Your task to perform on an android device: set default search engine in the chrome app Image 0: 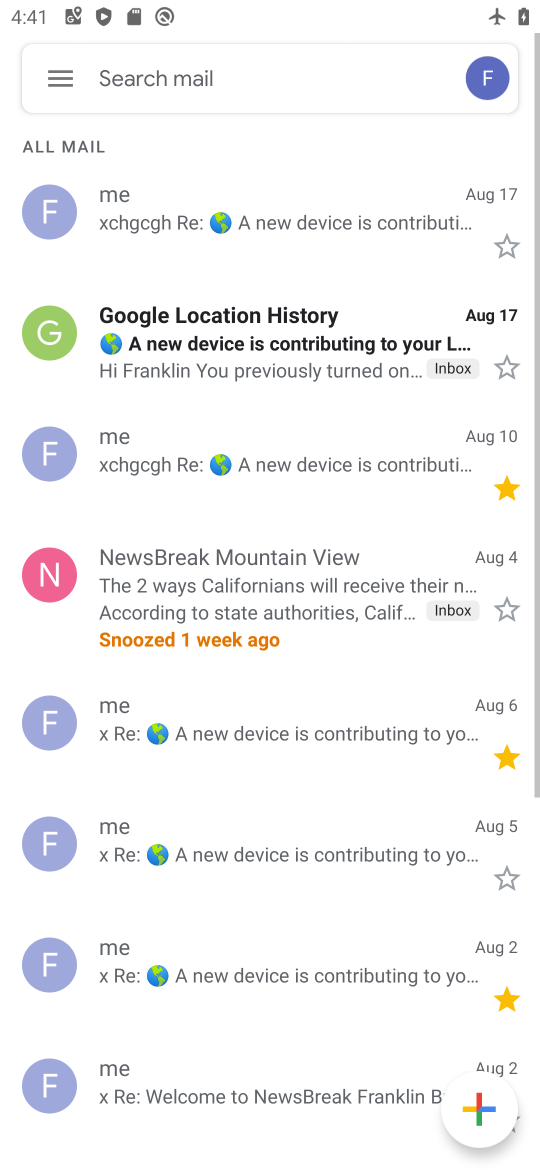
Step 0: press home button
Your task to perform on an android device: set default search engine in the chrome app Image 1: 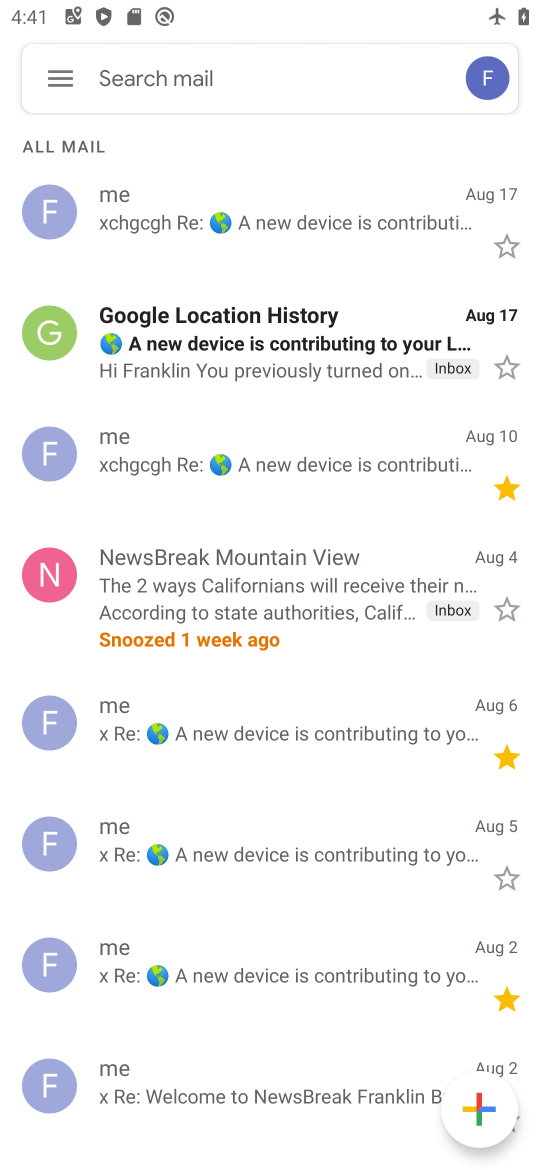
Step 1: press home button
Your task to perform on an android device: set default search engine in the chrome app Image 2: 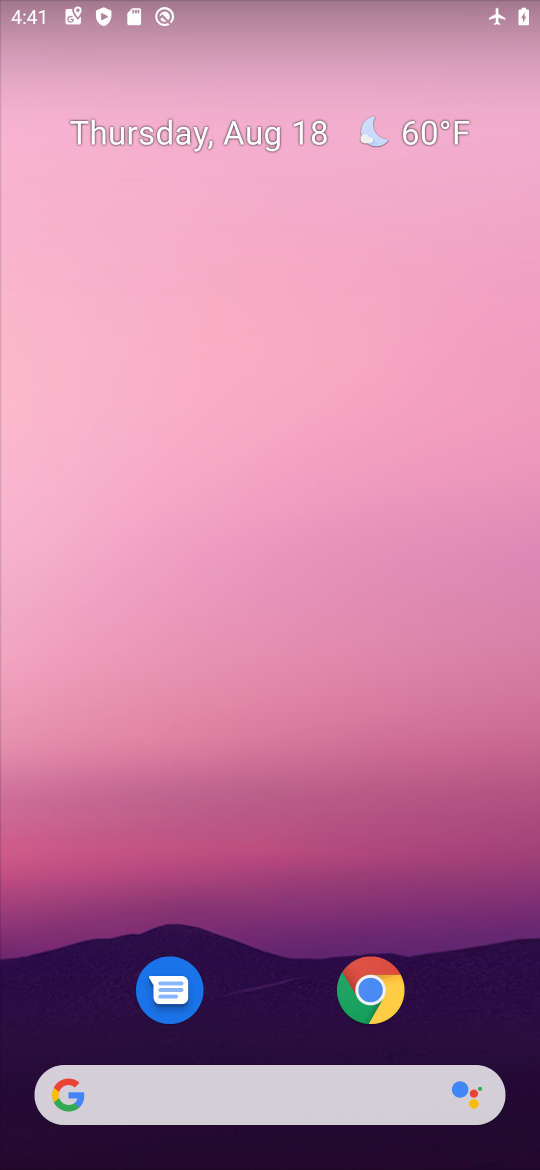
Step 2: drag from (297, 890) to (408, 128)
Your task to perform on an android device: set default search engine in the chrome app Image 3: 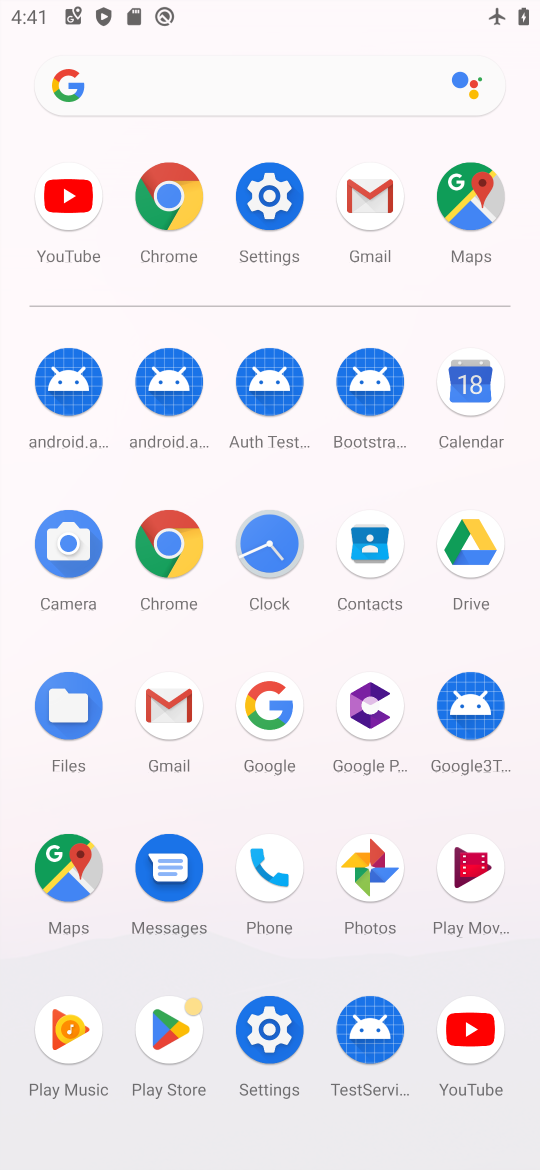
Step 3: click (177, 549)
Your task to perform on an android device: set default search engine in the chrome app Image 4: 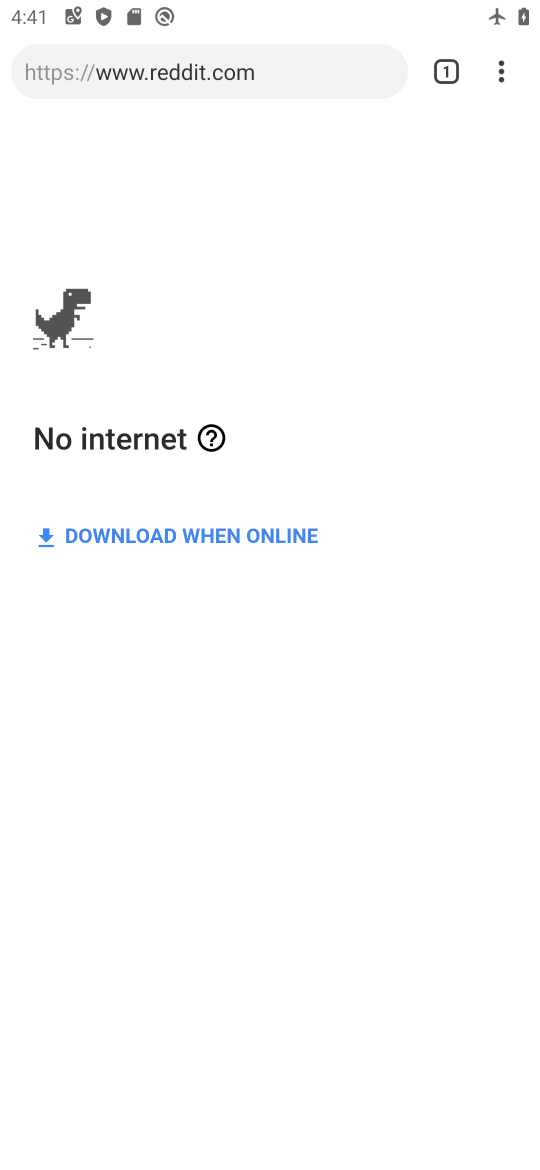
Step 4: drag from (499, 59) to (266, 805)
Your task to perform on an android device: set default search engine in the chrome app Image 5: 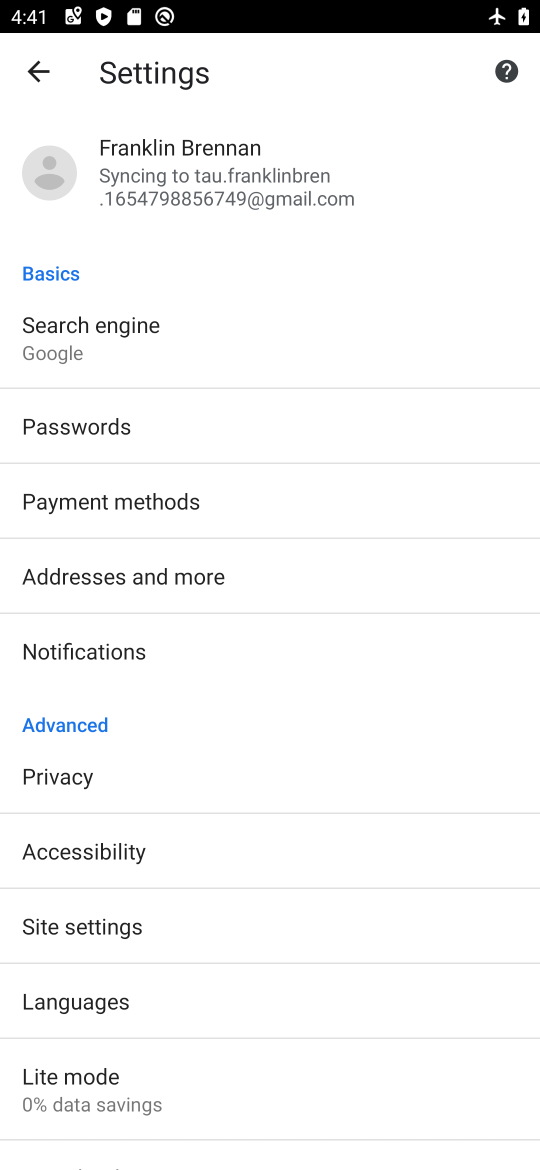
Step 5: click (71, 351)
Your task to perform on an android device: set default search engine in the chrome app Image 6: 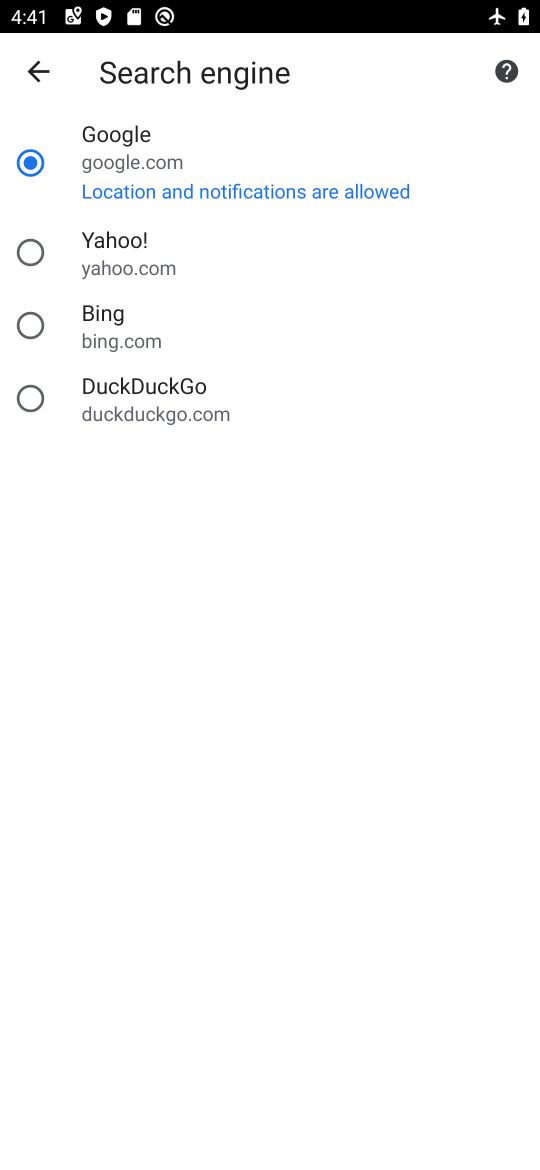
Step 6: task complete